Your task to perform on an android device: Search for "macbook pro 15 inch" on ebay.com, select the first entry, add it to the cart, then select checkout. Image 0: 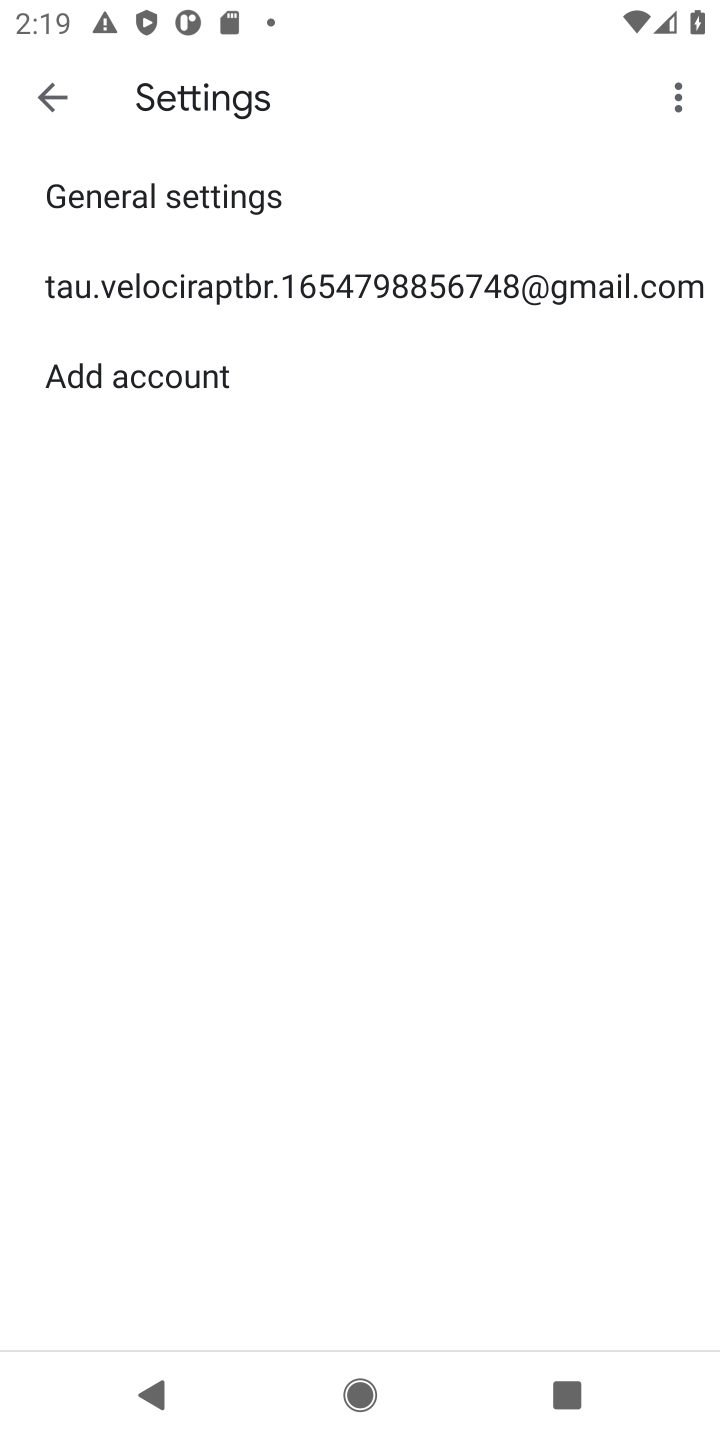
Step 0: press home button
Your task to perform on an android device: Search for "macbook pro 15 inch" on ebay.com, select the first entry, add it to the cart, then select checkout. Image 1: 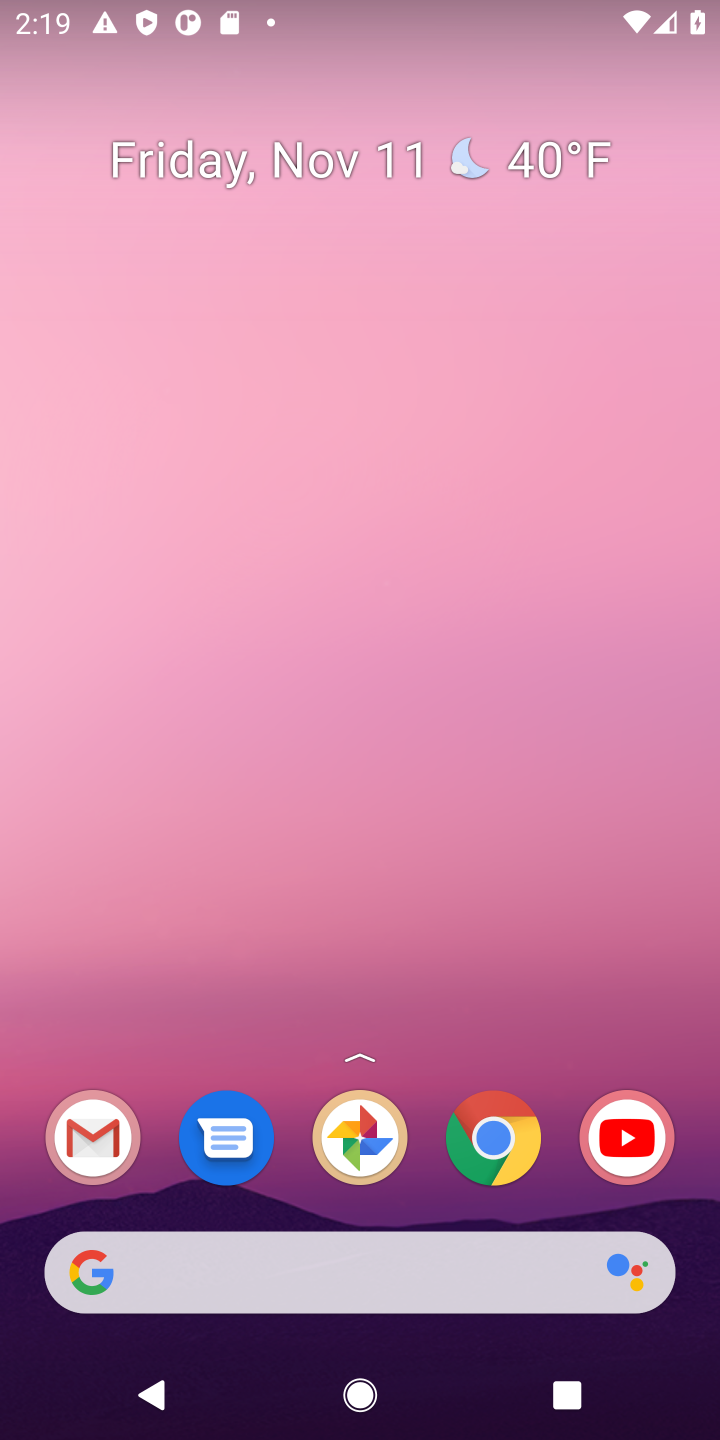
Step 1: click (477, 1136)
Your task to perform on an android device: Search for "macbook pro 15 inch" on ebay.com, select the first entry, add it to the cart, then select checkout. Image 2: 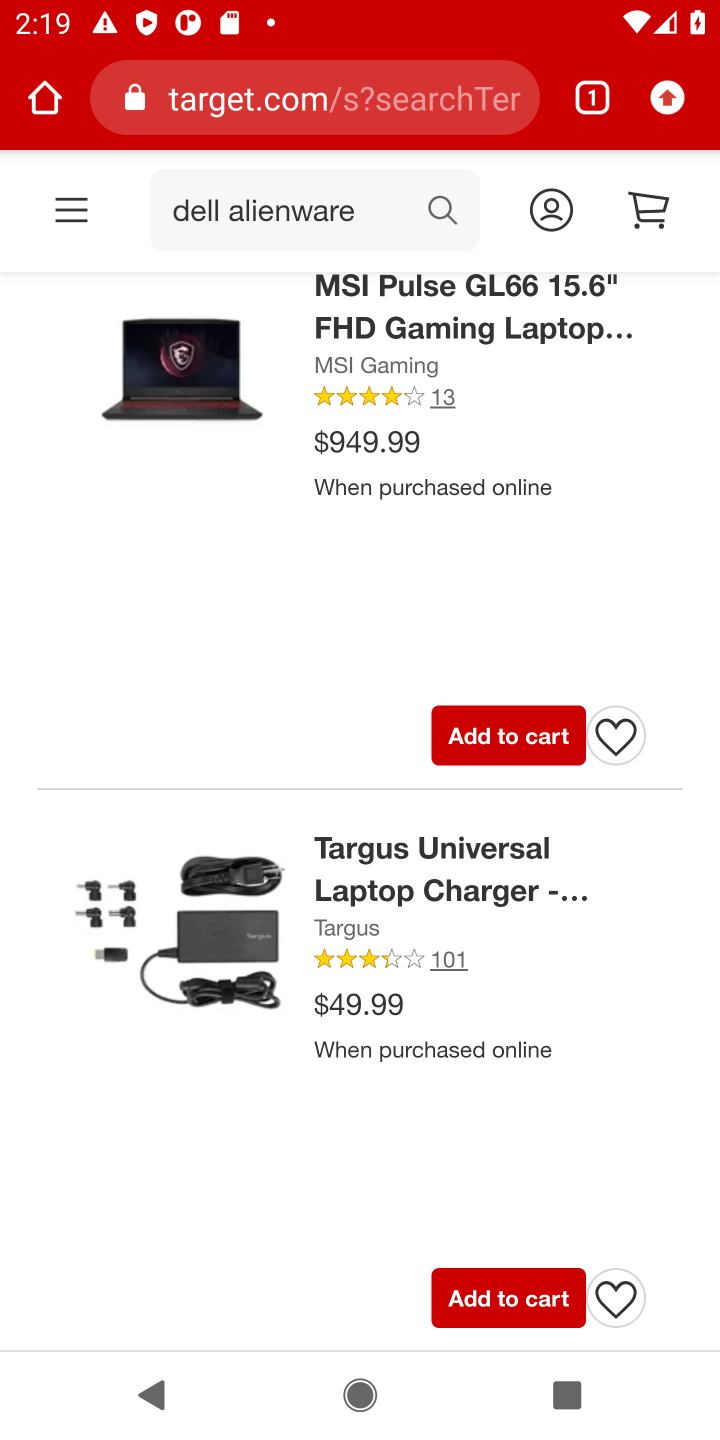
Step 2: click (36, 97)
Your task to perform on an android device: Search for "macbook pro 15 inch" on ebay.com, select the first entry, add it to the cart, then select checkout. Image 3: 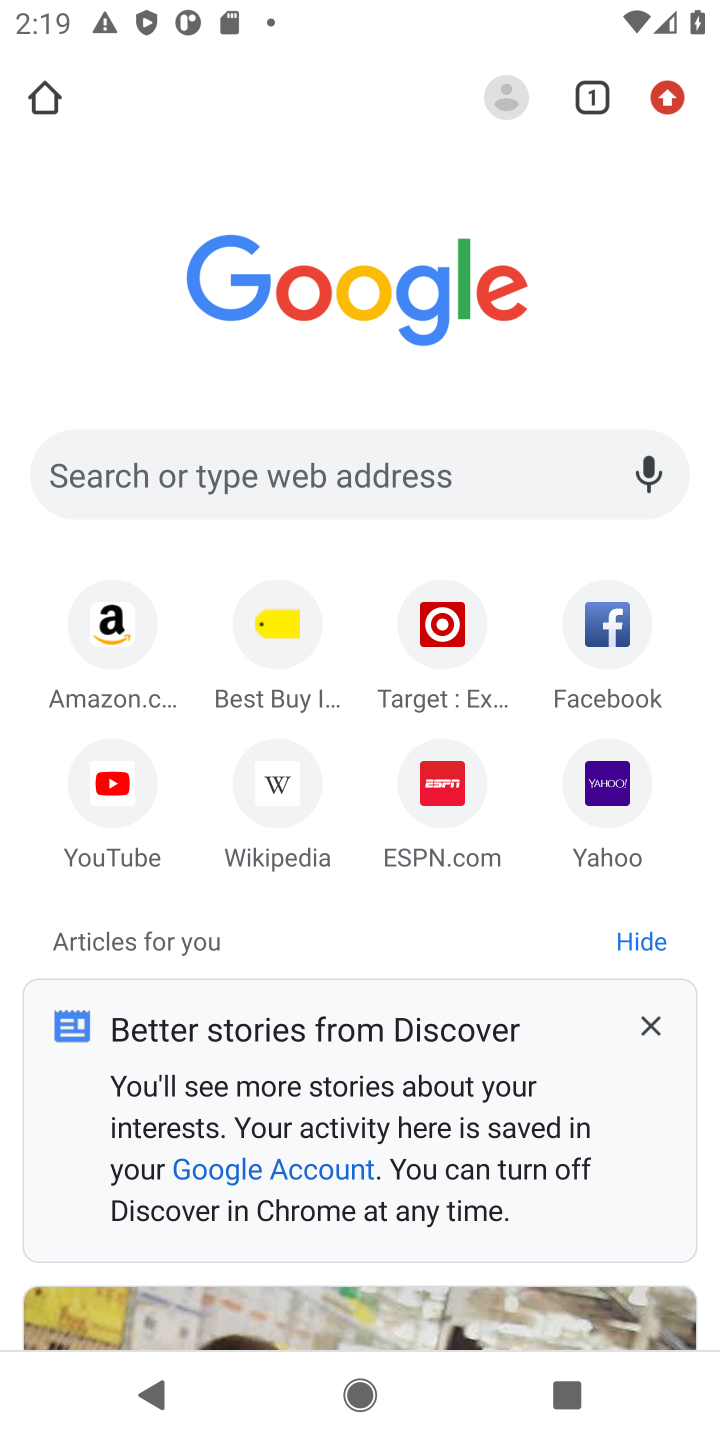
Step 3: click (367, 473)
Your task to perform on an android device: Search for "macbook pro 15 inch" on ebay.com, select the first entry, add it to the cart, then select checkout. Image 4: 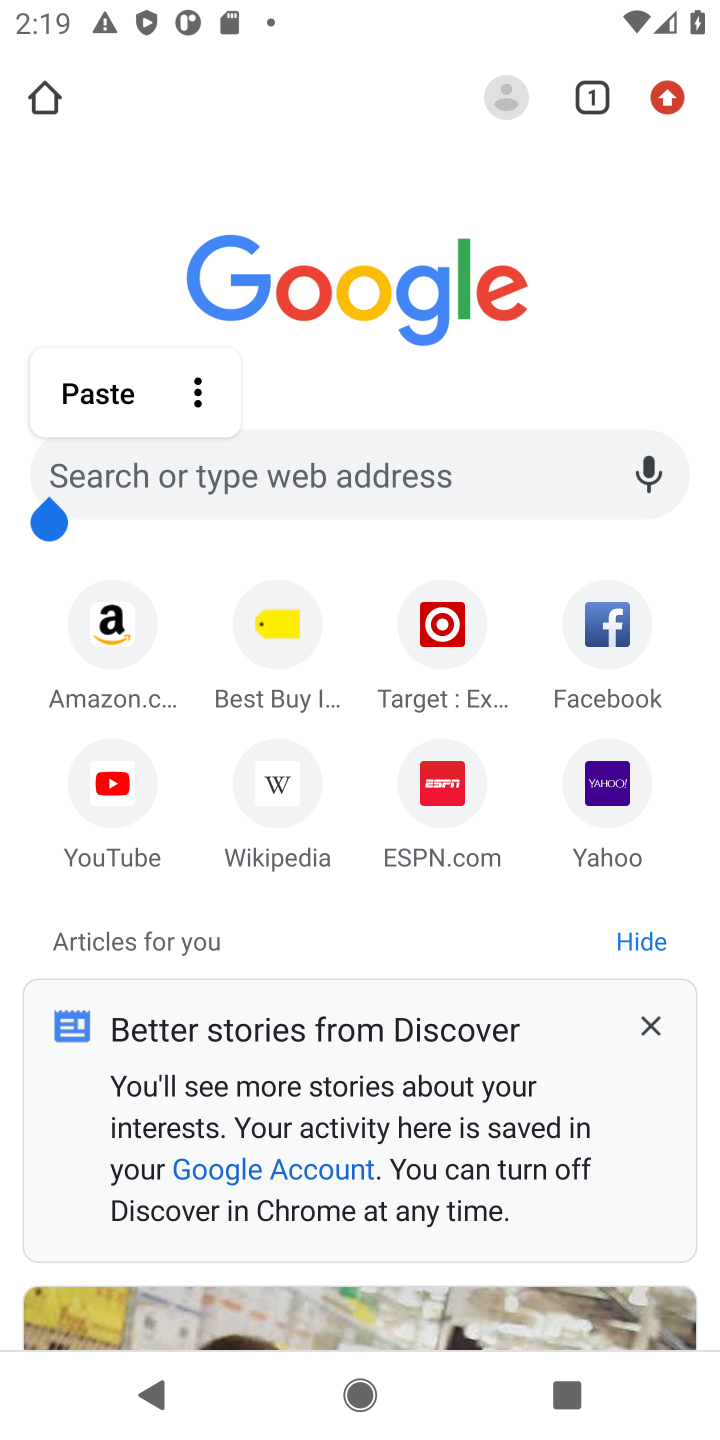
Step 4: click (365, 471)
Your task to perform on an android device: Search for "macbook pro 15 inch" on ebay.com, select the first entry, add it to the cart, then select checkout. Image 5: 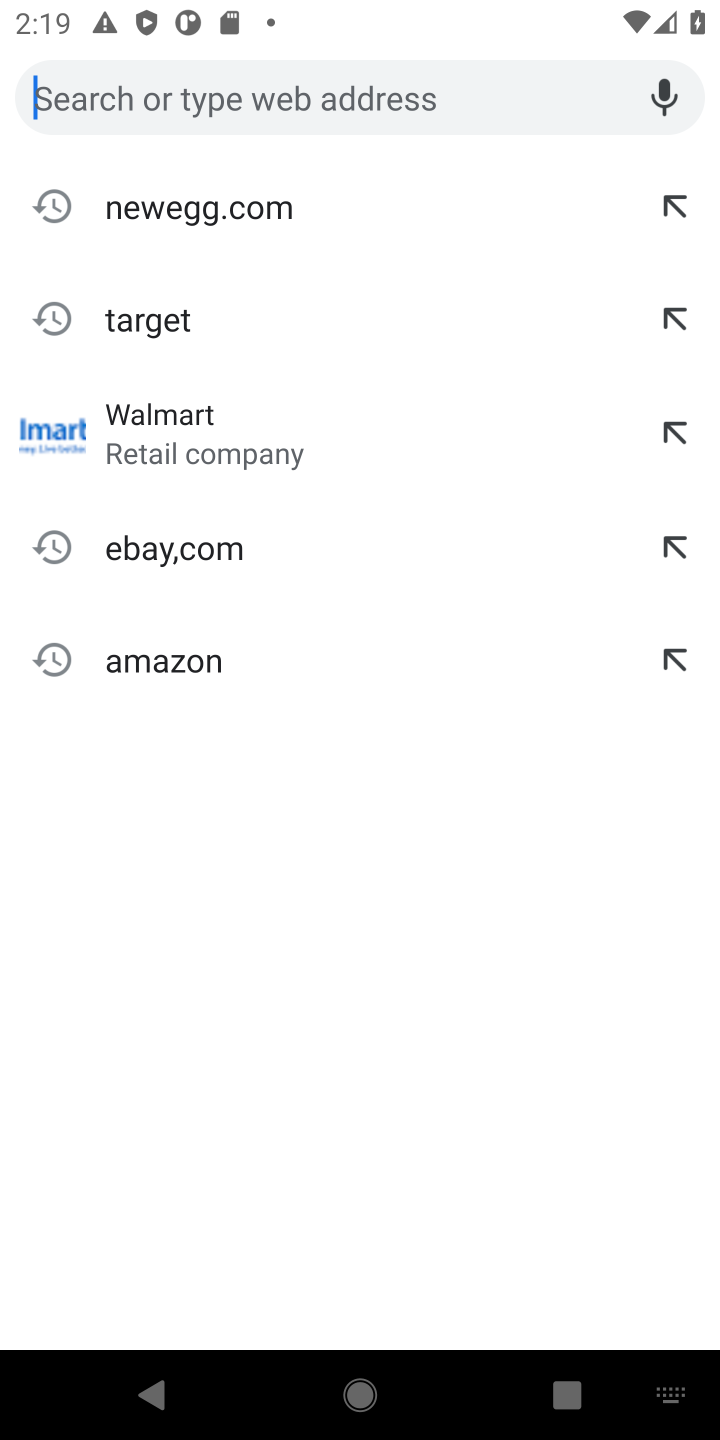
Step 5: click (166, 541)
Your task to perform on an android device: Search for "macbook pro 15 inch" on ebay.com, select the first entry, add it to the cart, then select checkout. Image 6: 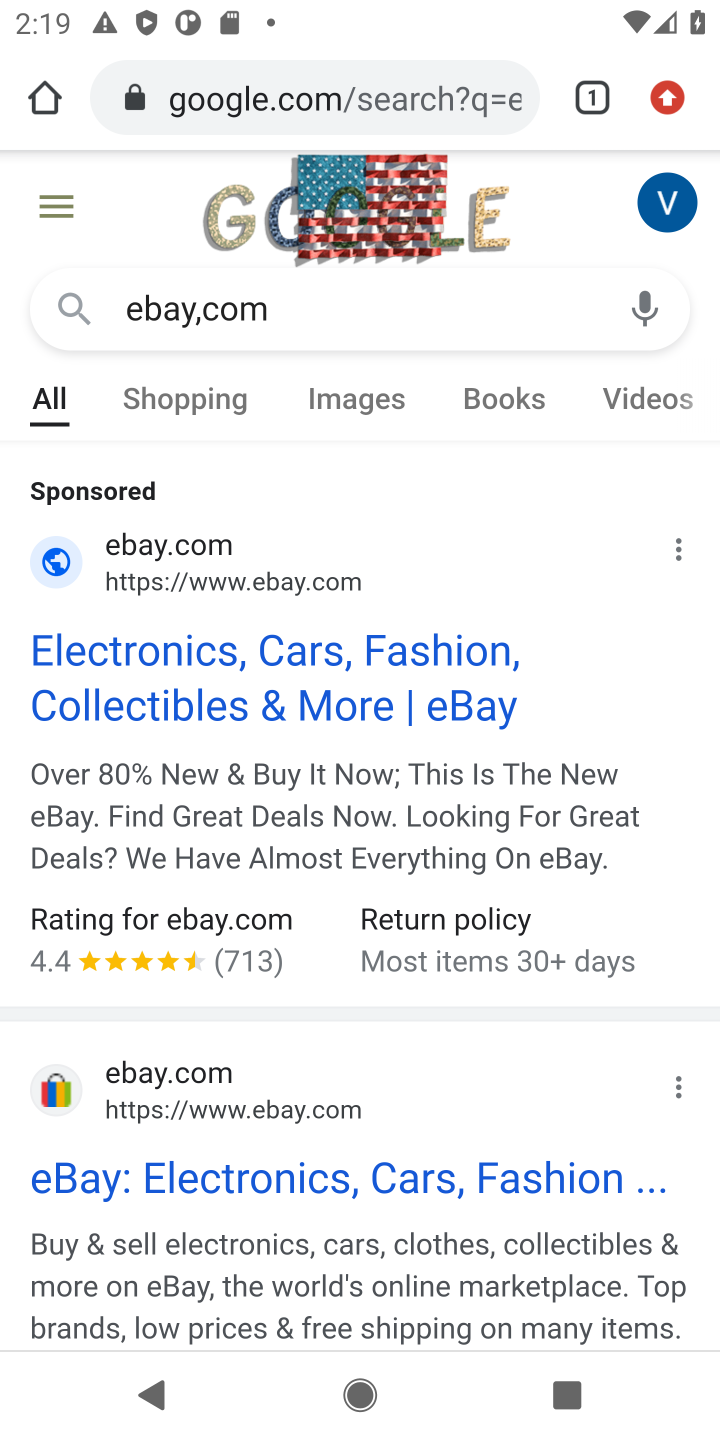
Step 6: click (317, 1120)
Your task to perform on an android device: Search for "macbook pro 15 inch" on ebay.com, select the first entry, add it to the cart, then select checkout. Image 7: 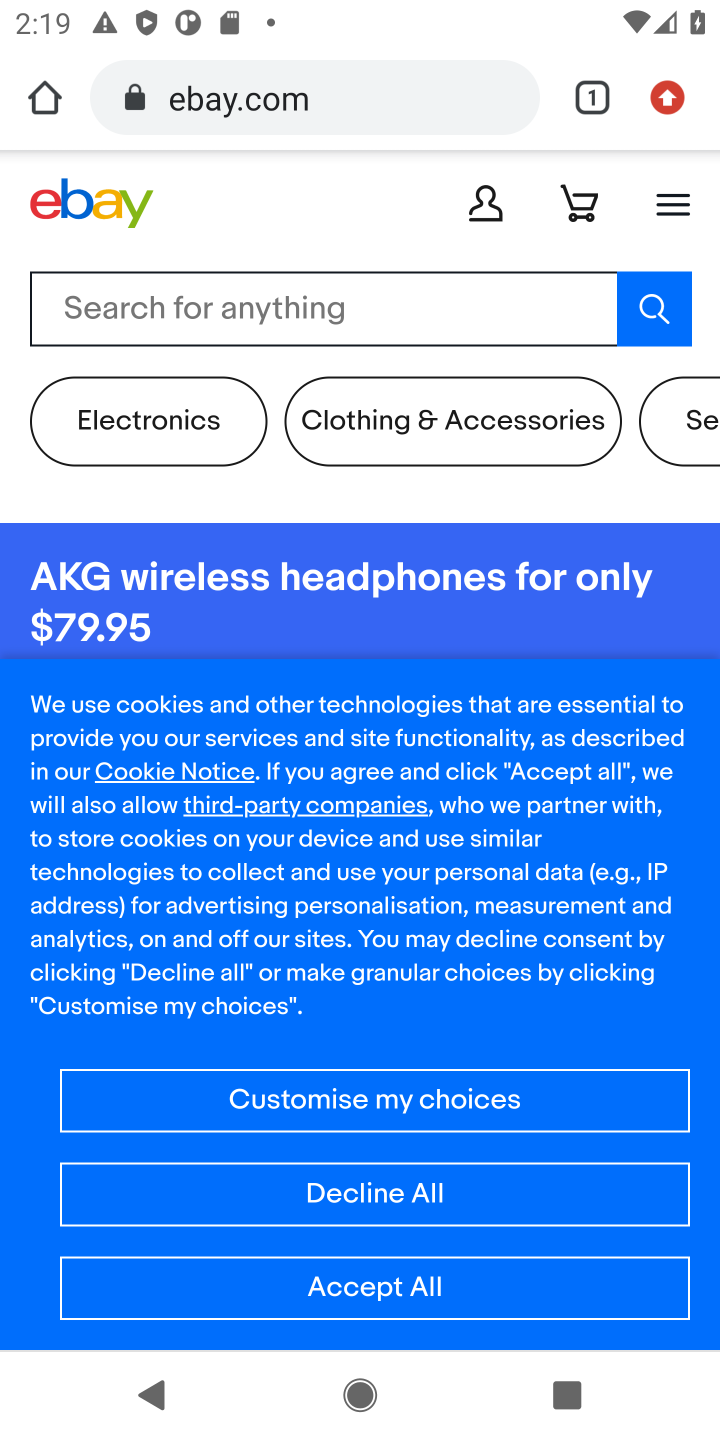
Step 7: click (548, 295)
Your task to perform on an android device: Search for "macbook pro 15 inch" on ebay.com, select the first entry, add it to the cart, then select checkout. Image 8: 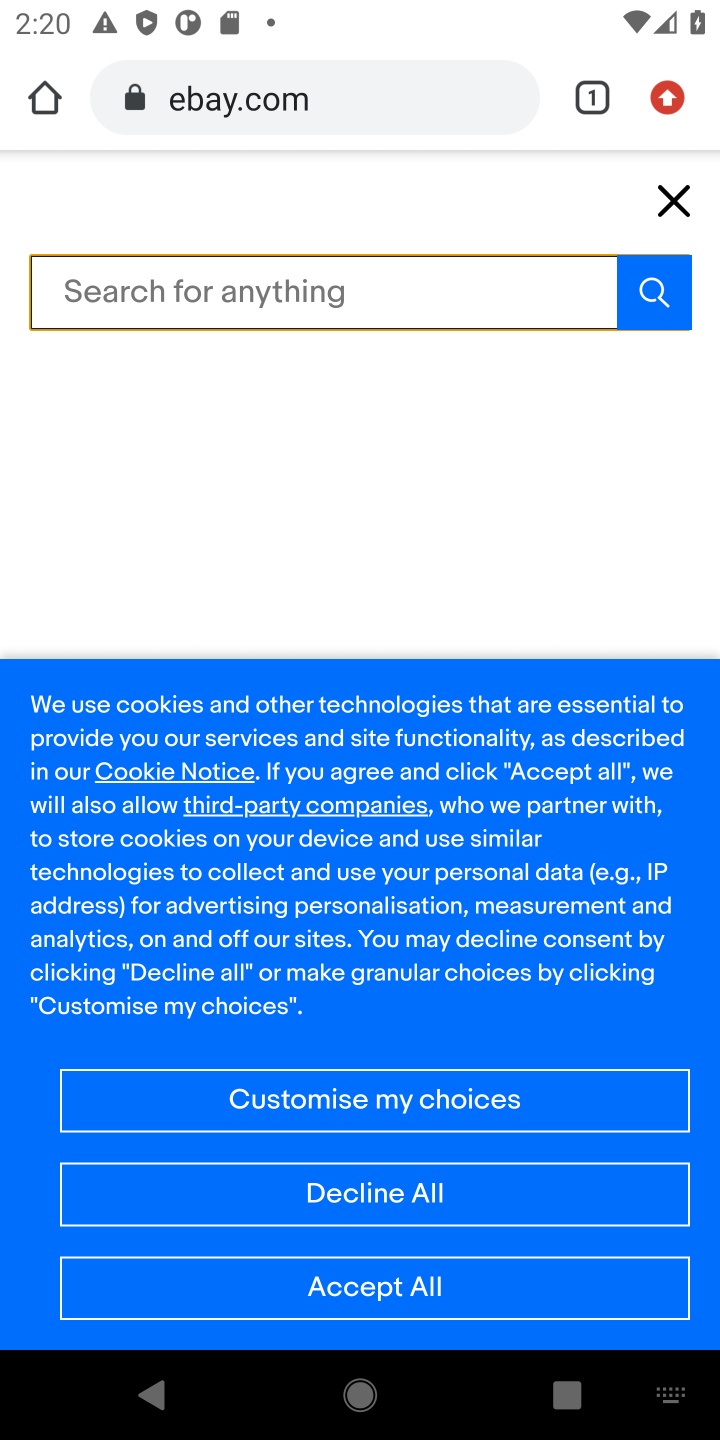
Step 8: type "macbook pro 15 inch"
Your task to perform on an android device: Search for "macbook pro 15 inch" on ebay.com, select the first entry, add it to the cart, then select checkout. Image 9: 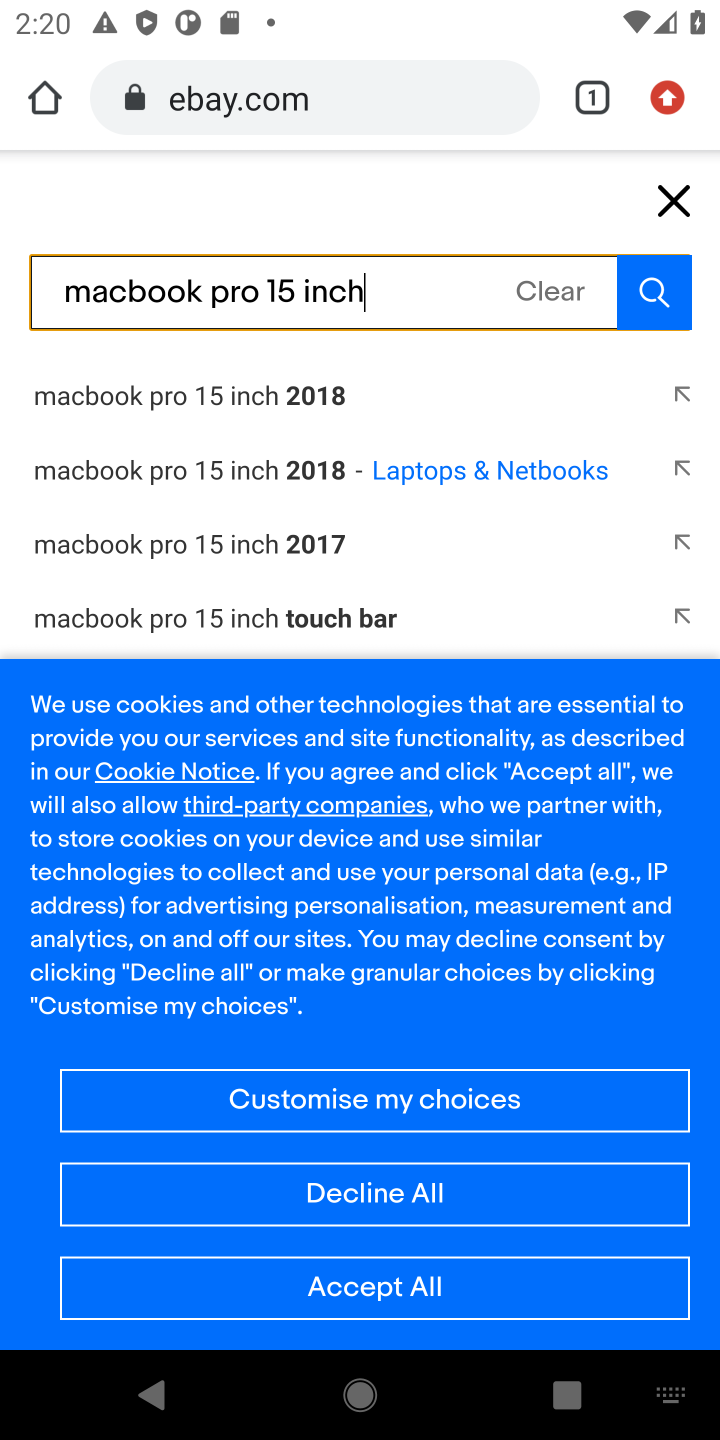
Step 9: click (650, 280)
Your task to perform on an android device: Search for "macbook pro 15 inch" on ebay.com, select the first entry, add it to the cart, then select checkout. Image 10: 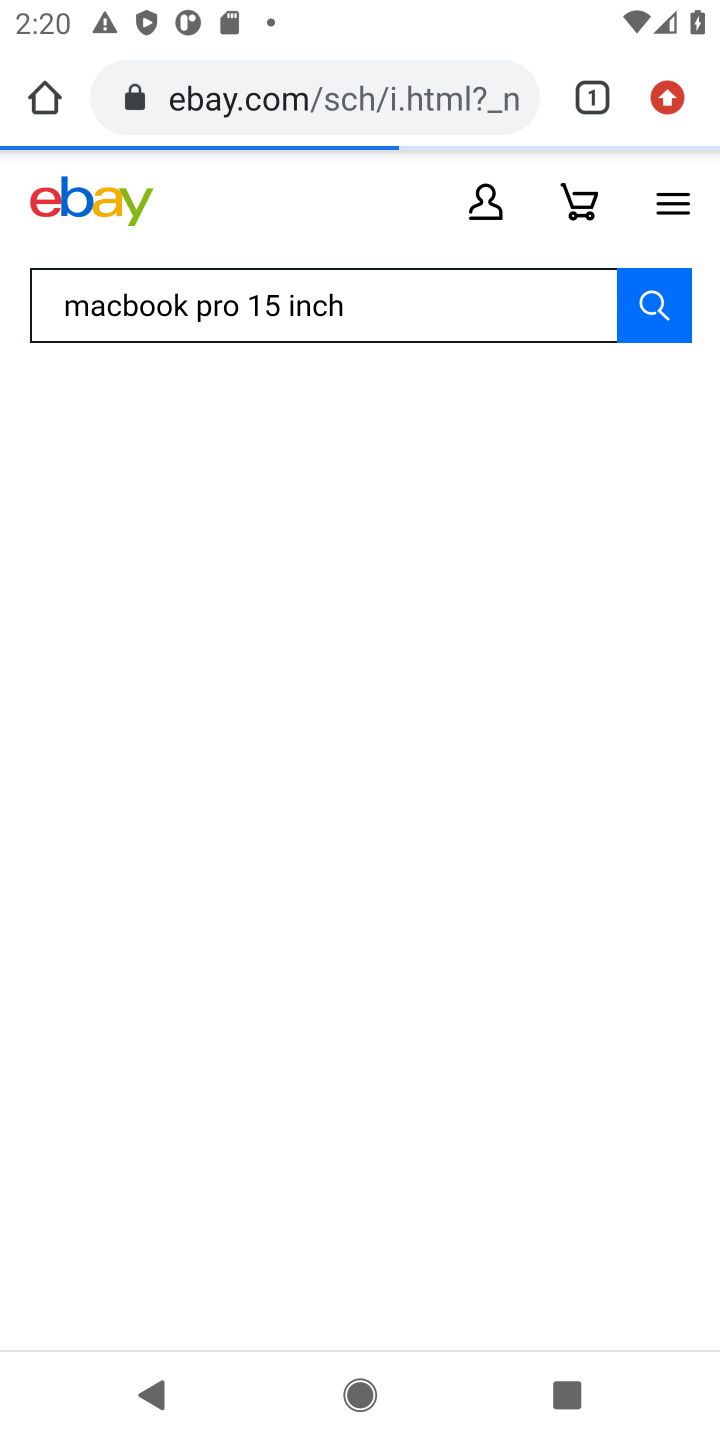
Step 10: click (405, 1285)
Your task to perform on an android device: Search for "macbook pro 15 inch" on ebay.com, select the first entry, add it to the cart, then select checkout. Image 11: 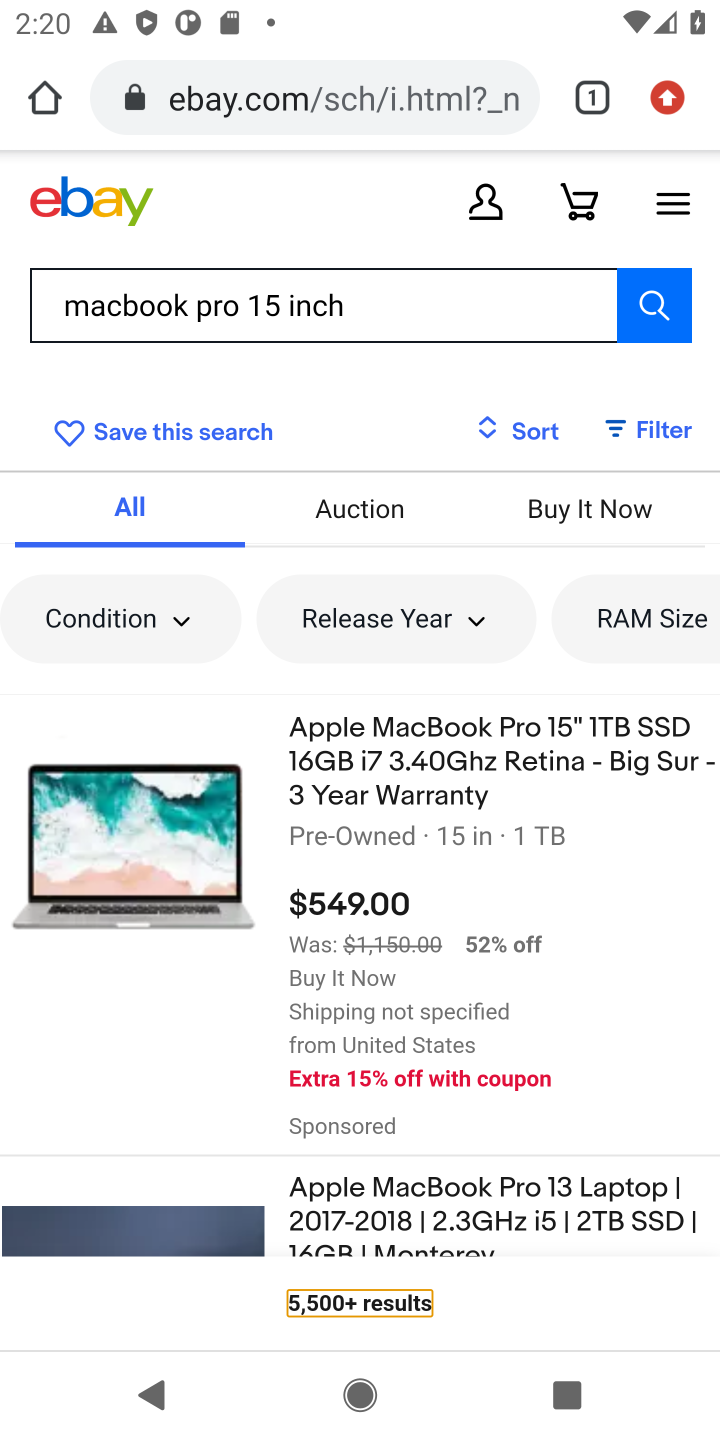
Step 11: click (142, 808)
Your task to perform on an android device: Search for "macbook pro 15 inch" on ebay.com, select the first entry, add it to the cart, then select checkout. Image 12: 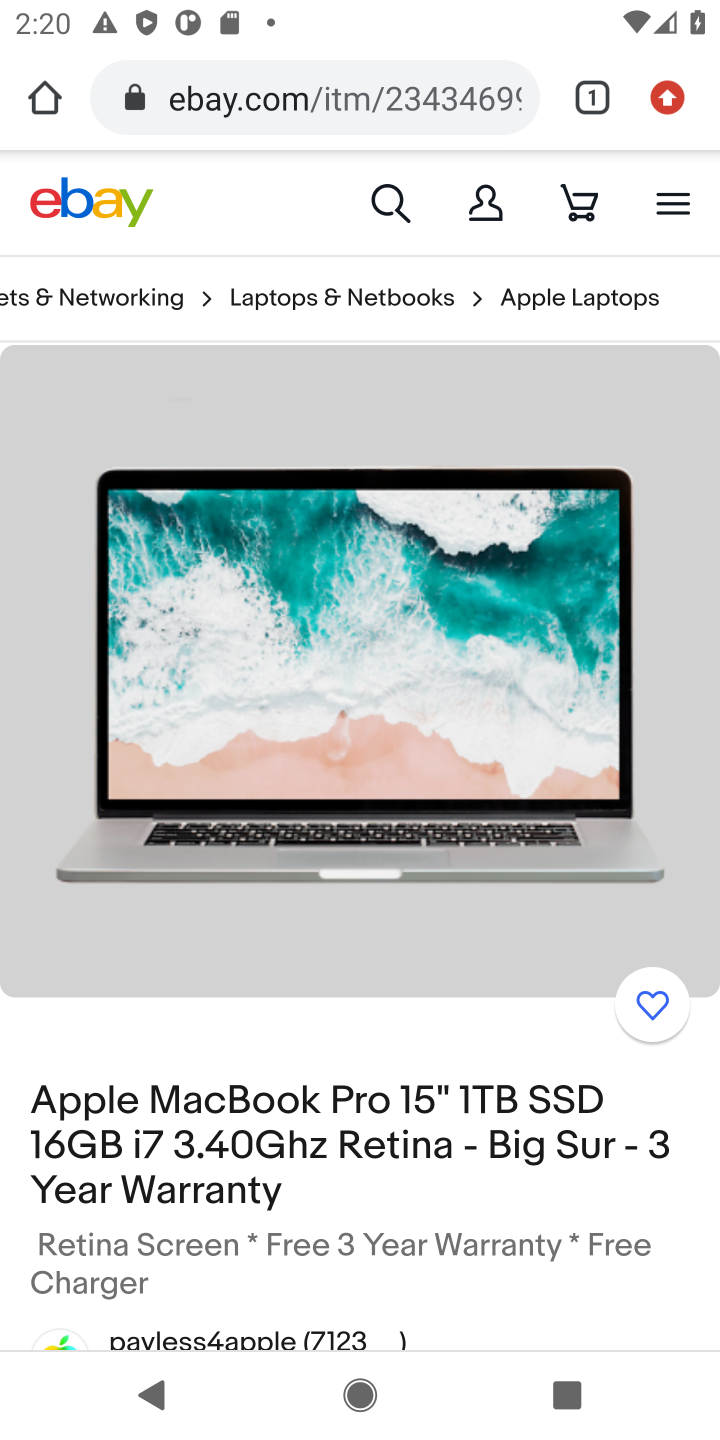
Step 12: click (552, 477)
Your task to perform on an android device: Search for "macbook pro 15 inch" on ebay.com, select the first entry, add it to the cart, then select checkout. Image 13: 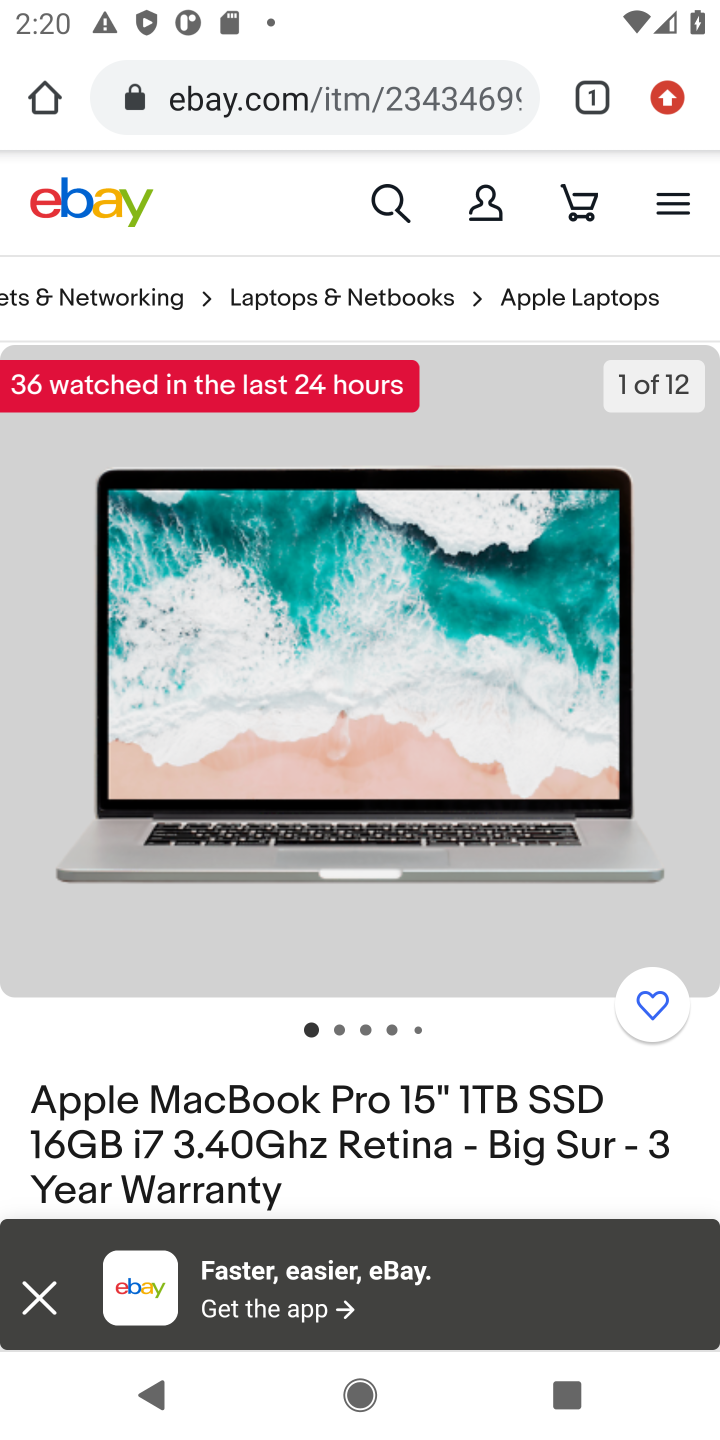
Step 13: drag from (466, 995) to (575, 487)
Your task to perform on an android device: Search for "macbook pro 15 inch" on ebay.com, select the first entry, add it to the cart, then select checkout. Image 14: 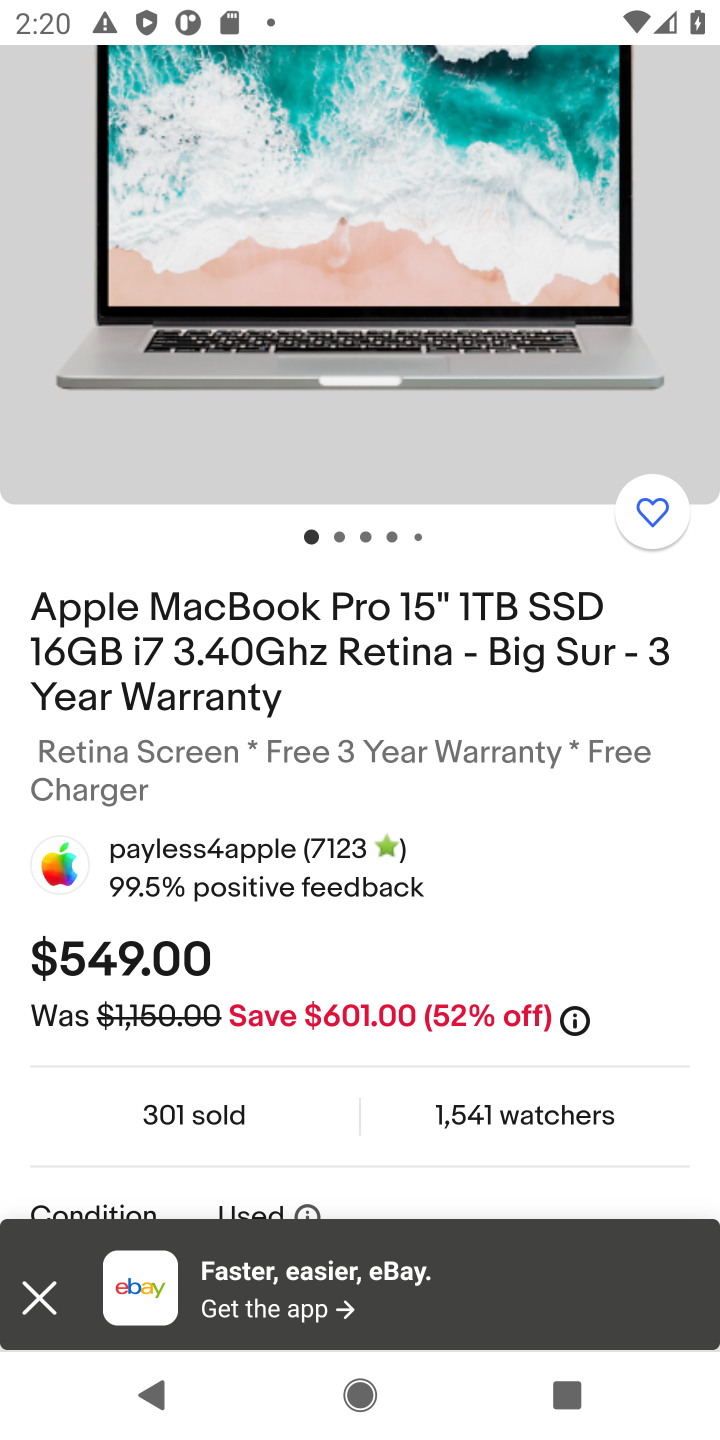
Step 14: drag from (400, 803) to (445, 471)
Your task to perform on an android device: Search for "macbook pro 15 inch" on ebay.com, select the first entry, add it to the cart, then select checkout. Image 15: 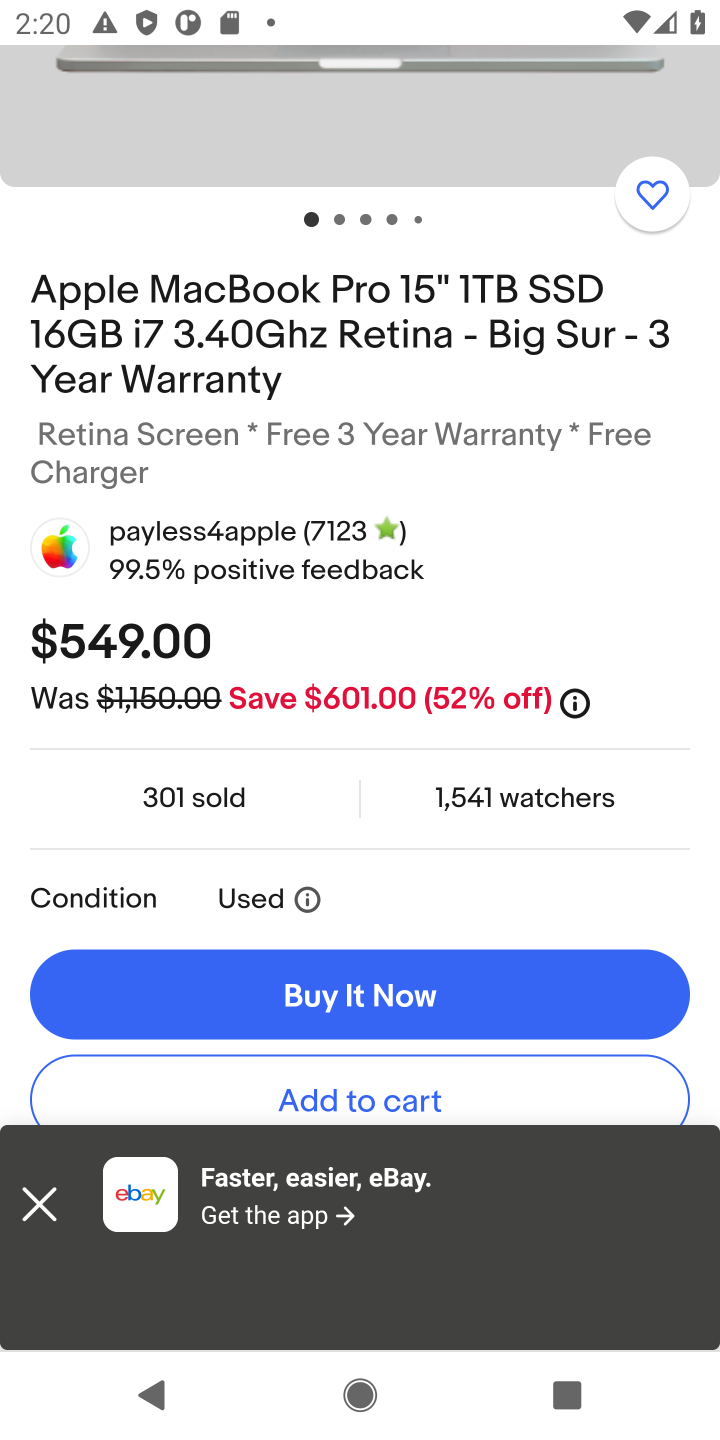
Step 15: click (400, 1078)
Your task to perform on an android device: Search for "macbook pro 15 inch" on ebay.com, select the first entry, add it to the cart, then select checkout. Image 16: 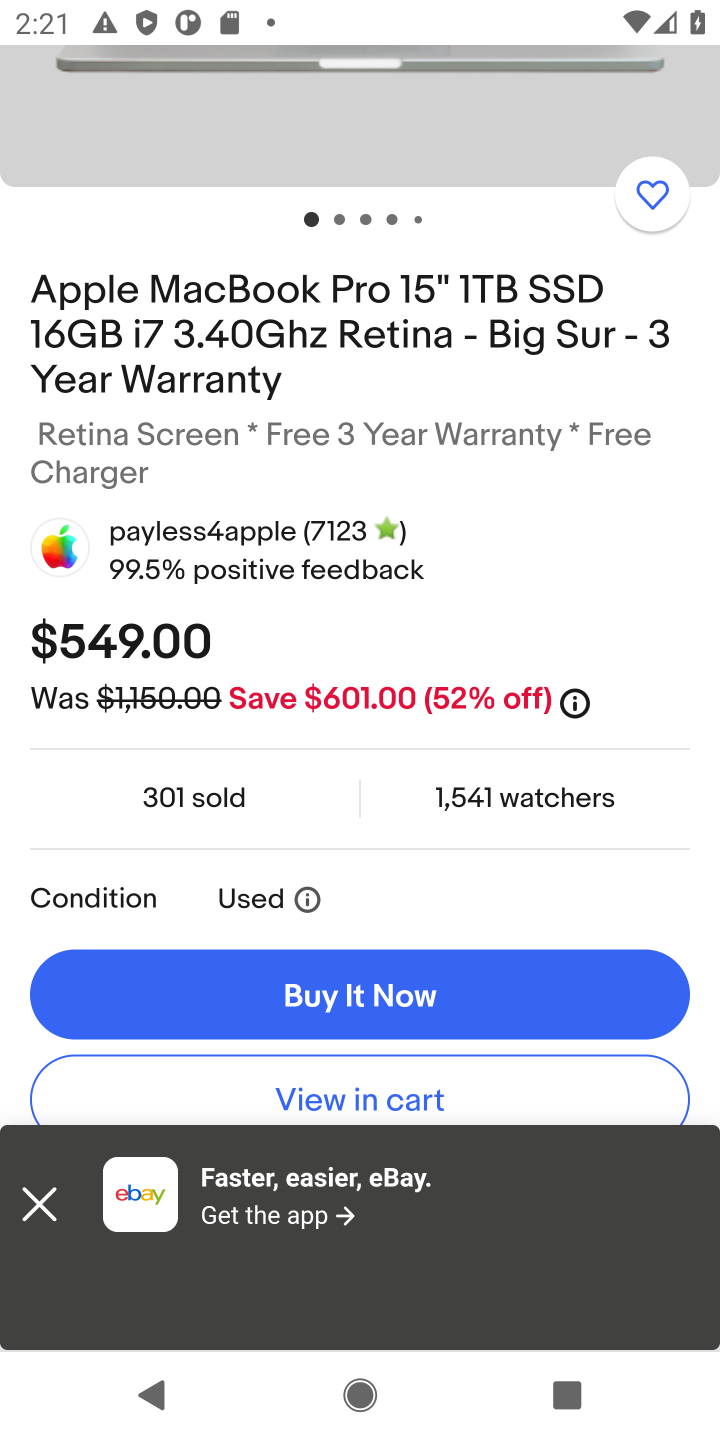
Step 16: click (404, 1079)
Your task to perform on an android device: Search for "macbook pro 15 inch" on ebay.com, select the first entry, add it to the cart, then select checkout. Image 17: 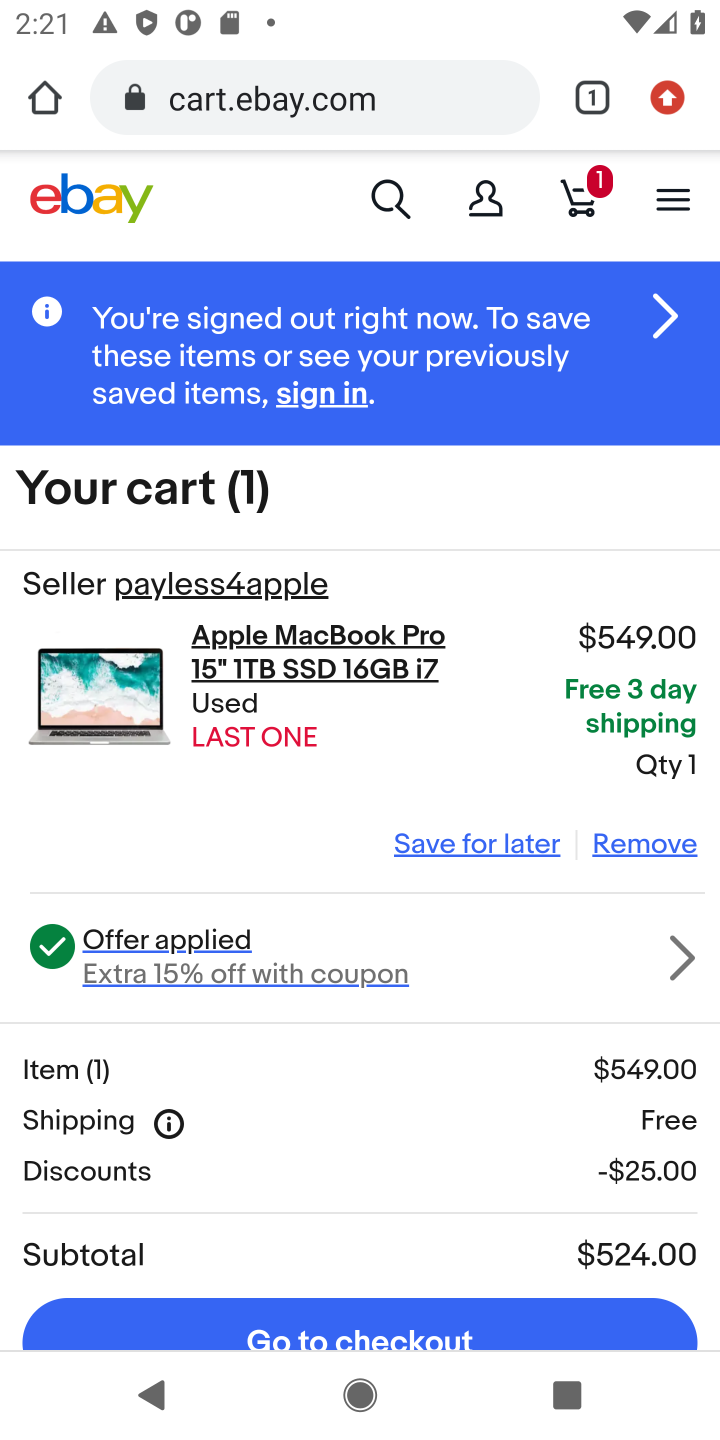
Step 17: drag from (429, 1009) to (404, 482)
Your task to perform on an android device: Search for "macbook pro 15 inch" on ebay.com, select the first entry, add it to the cart, then select checkout. Image 18: 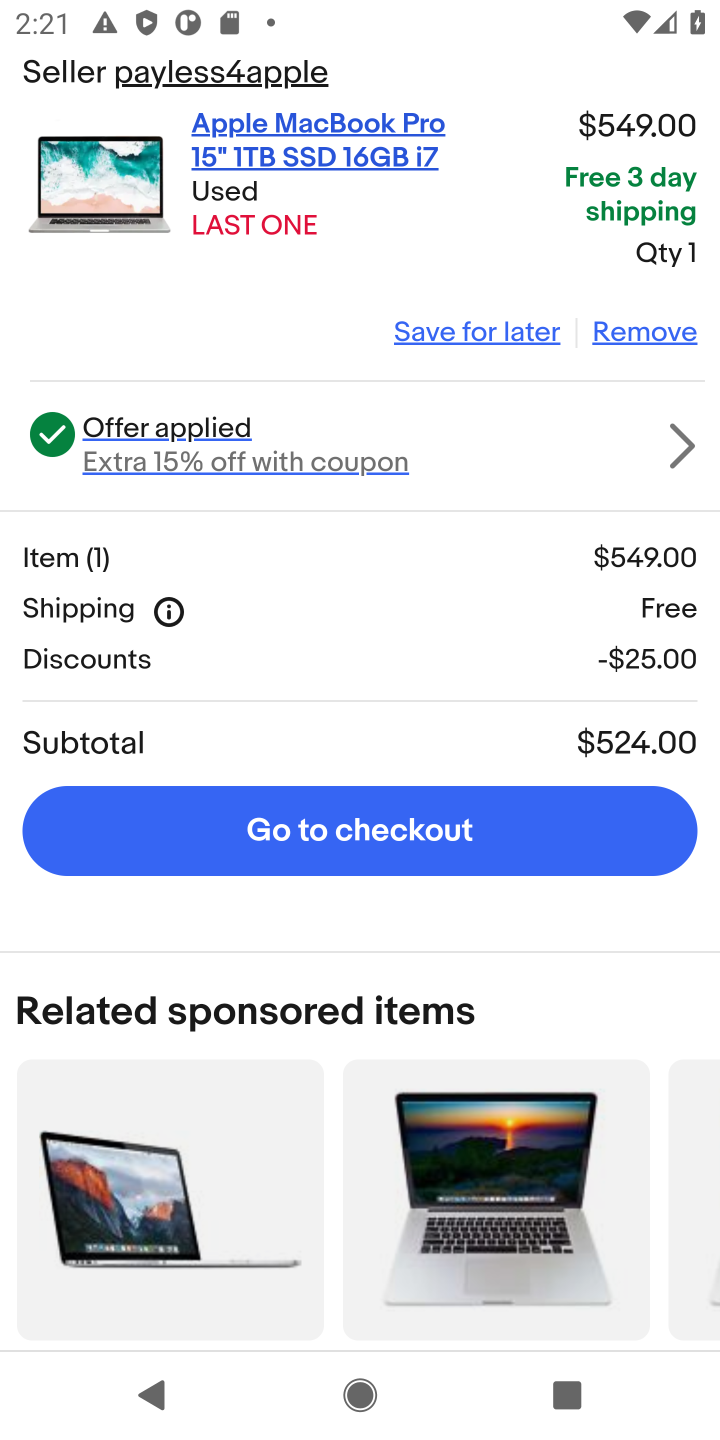
Step 18: click (374, 824)
Your task to perform on an android device: Search for "macbook pro 15 inch" on ebay.com, select the first entry, add it to the cart, then select checkout. Image 19: 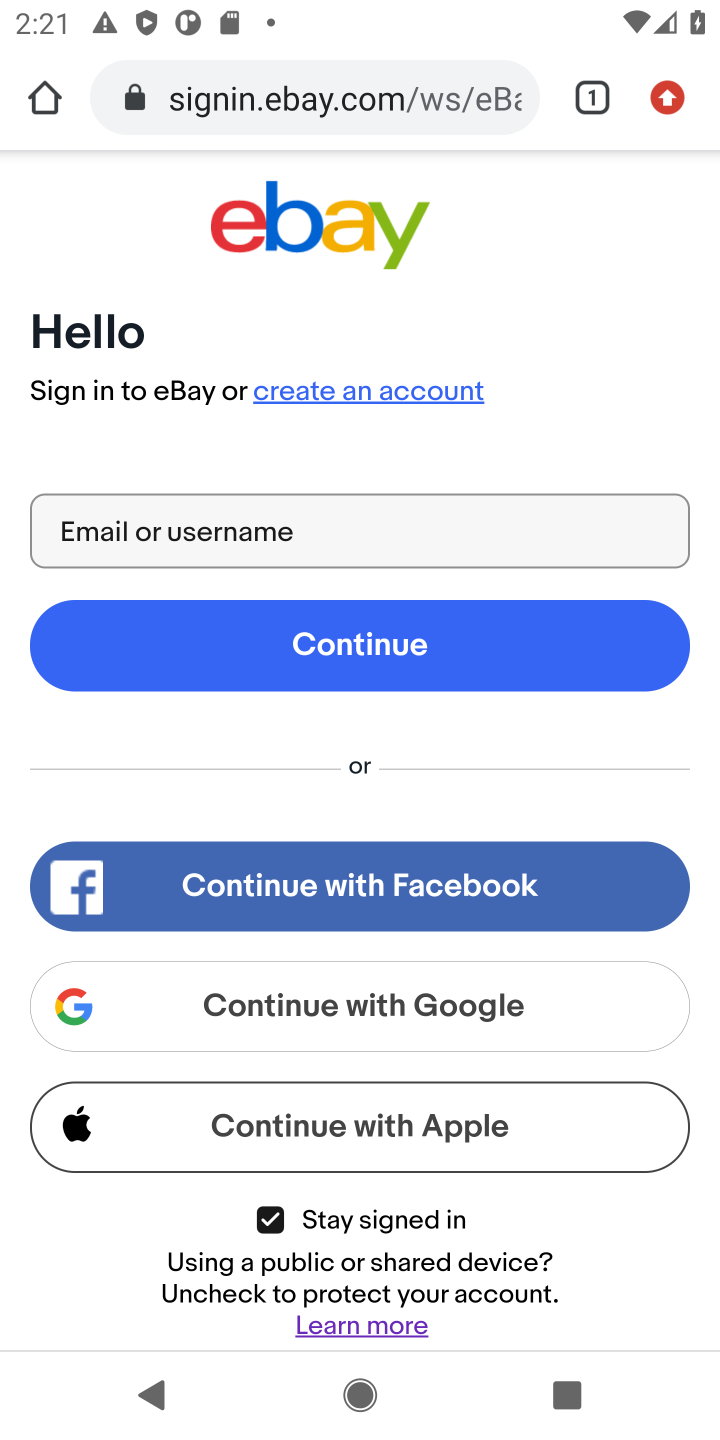
Step 19: task complete